Your task to perform on an android device: turn off notifications settings in the gmail app Image 0: 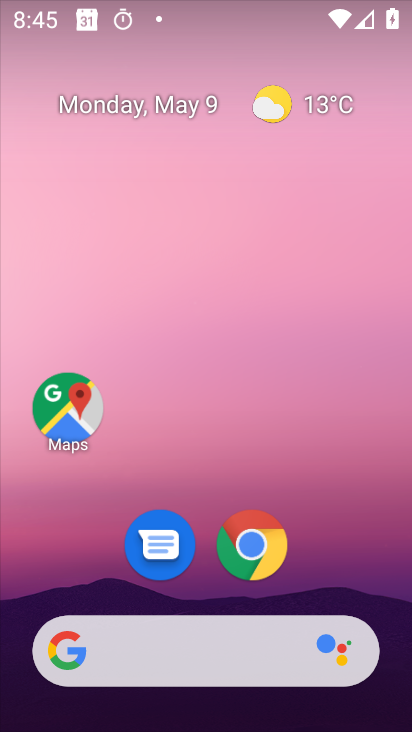
Step 0: drag from (352, 480) to (410, 337)
Your task to perform on an android device: turn off notifications settings in the gmail app Image 1: 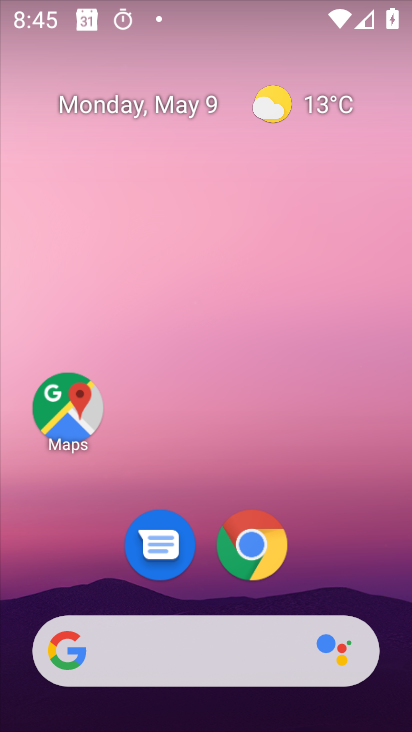
Step 1: drag from (365, 592) to (381, 77)
Your task to perform on an android device: turn off notifications settings in the gmail app Image 2: 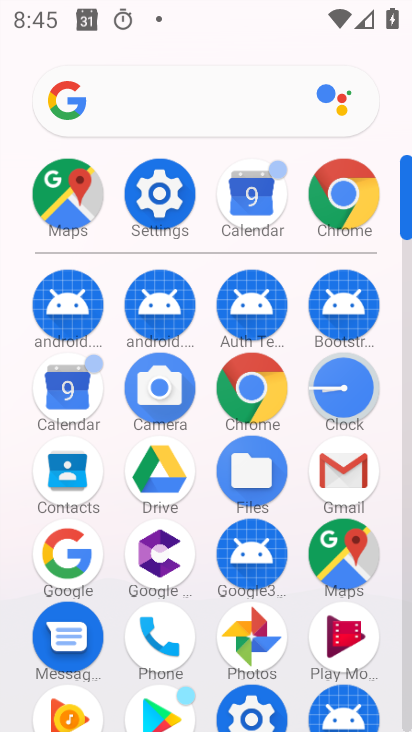
Step 2: click (347, 476)
Your task to perform on an android device: turn off notifications settings in the gmail app Image 3: 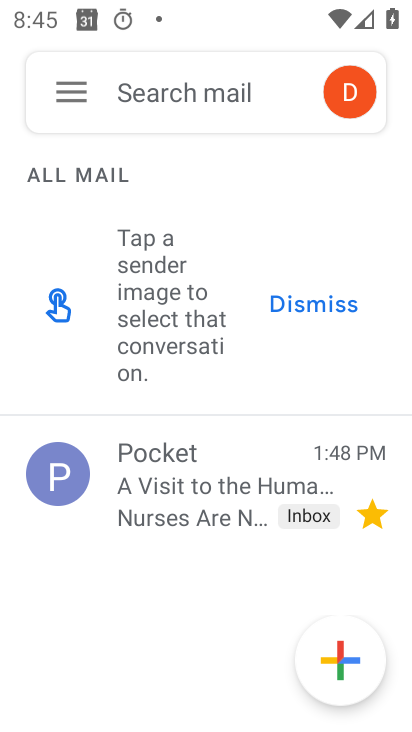
Step 3: click (53, 99)
Your task to perform on an android device: turn off notifications settings in the gmail app Image 4: 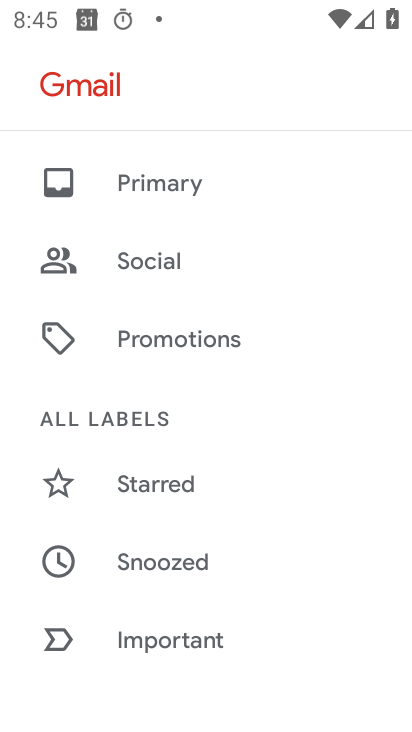
Step 4: drag from (262, 679) to (261, 237)
Your task to perform on an android device: turn off notifications settings in the gmail app Image 5: 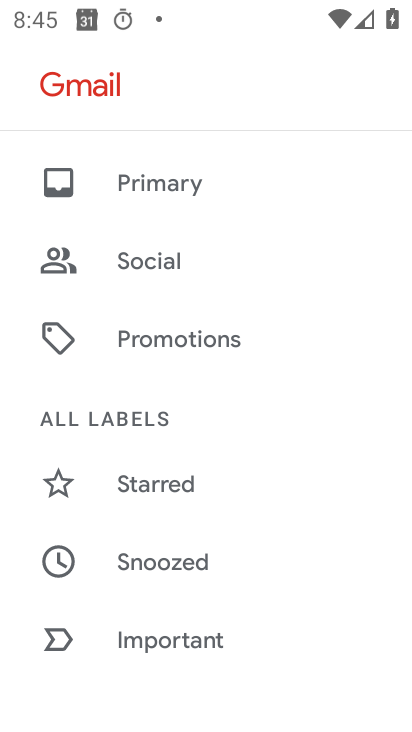
Step 5: drag from (247, 595) to (268, 184)
Your task to perform on an android device: turn off notifications settings in the gmail app Image 6: 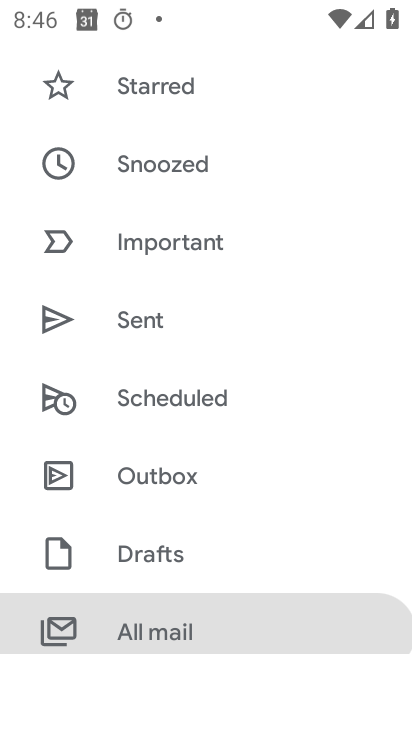
Step 6: drag from (192, 642) to (179, 269)
Your task to perform on an android device: turn off notifications settings in the gmail app Image 7: 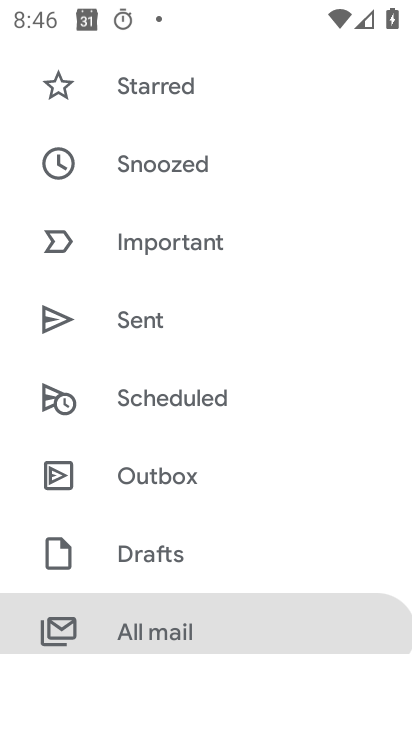
Step 7: drag from (137, 623) to (169, 284)
Your task to perform on an android device: turn off notifications settings in the gmail app Image 8: 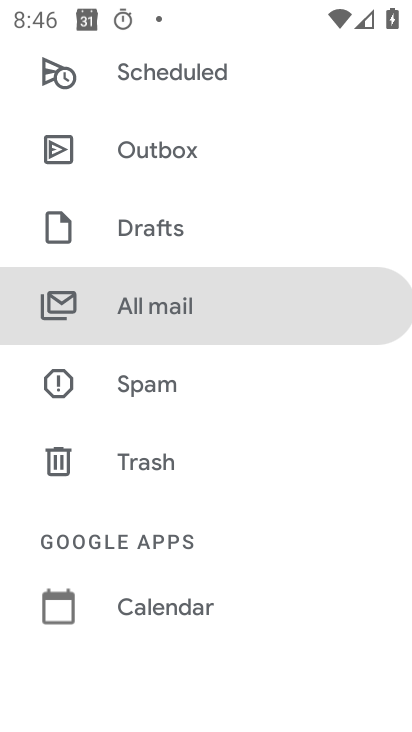
Step 8: drag from (280, 669) to (332, 172)
Your task to perform on an android device: turn off notifications settings in the gmail app Image 9: 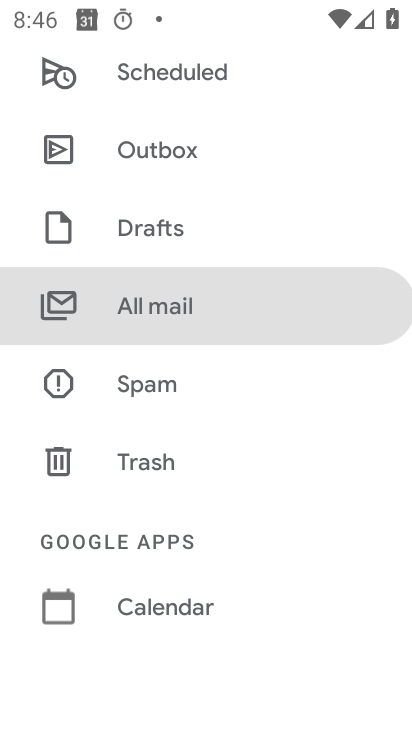
Step 9: drag from (202, 596) to (272, 242)
Your task to perform on an android device: turn off notifications settings in the gmail app Image 10: 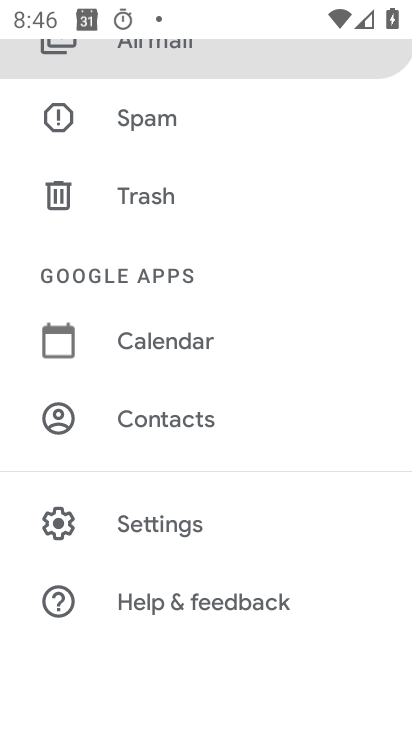
Step 10: click (150, 521)
Your task to perform on an android device: turn off notifications settings in the gmail app Image 11: 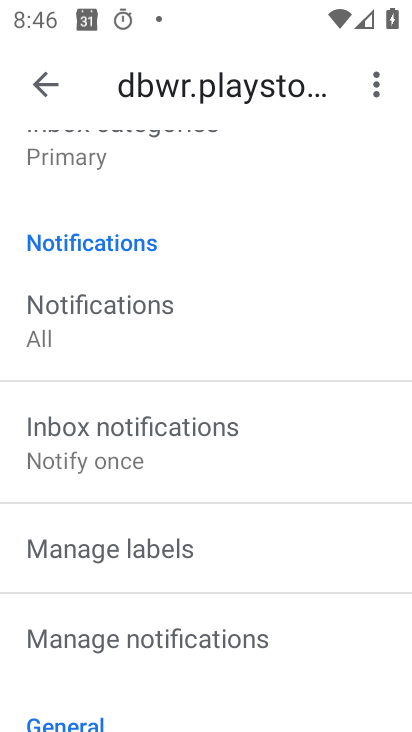
Step 11: drag from (60, 333) to (71, 385)
Your task to perform on an android device: turn off notifications settings in the gmail app Image 12: 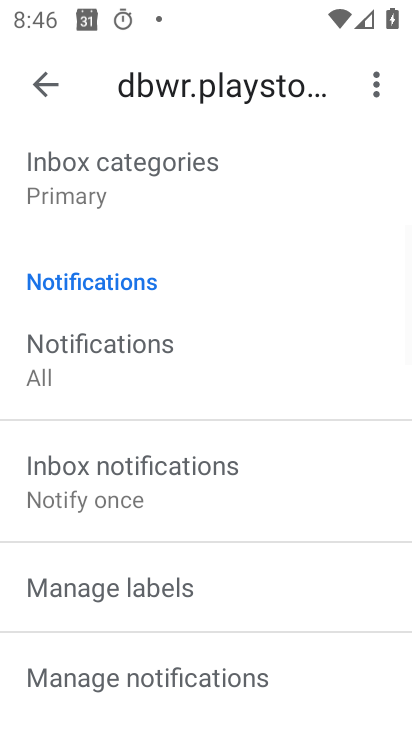
Step 12: click (89, 336)
Your task to perform on an android device: turn off notifications settings in the gmail app Image 13: 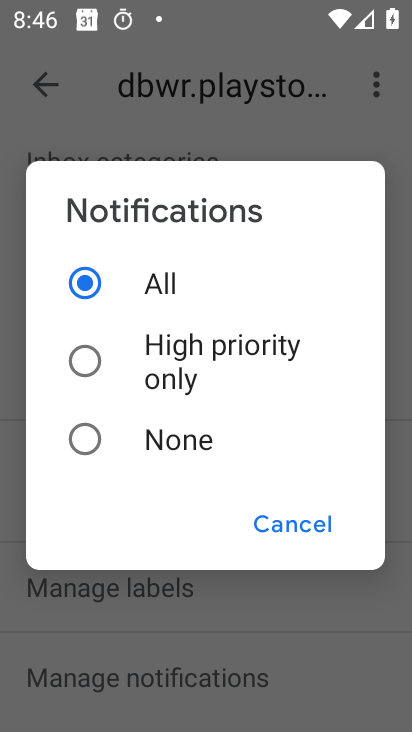
Step 13: click (80, 445)
Your task to perform on an android device: turn off notifications settings in the gmail app Image 14: 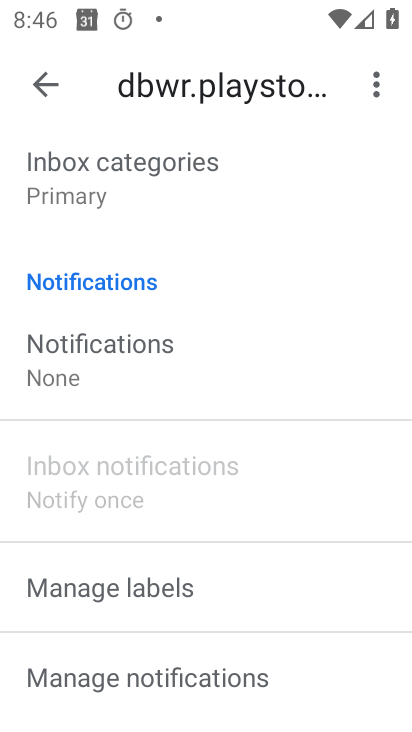
Step 14: task complete